Your task to perform on an android device: uninstall "Gmail" Image 0: 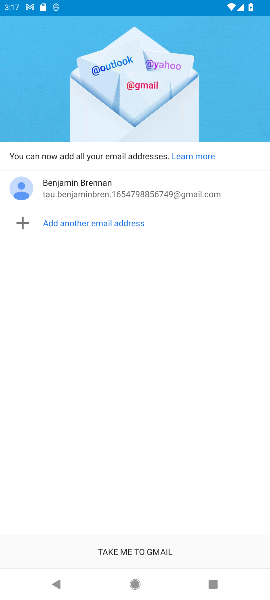
Step 0: press back button
Your task to perform on an android device: uninstall "Gmail" Image 1: 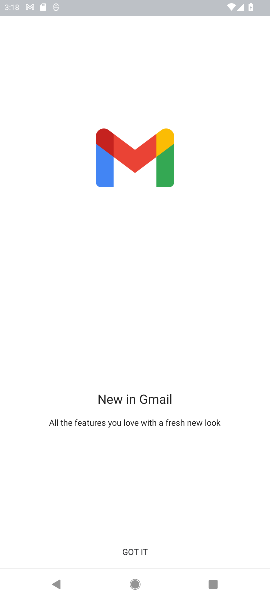
Step 1: press back button
Your task to perform on an android device: uninstall "Gmail" Image 2: 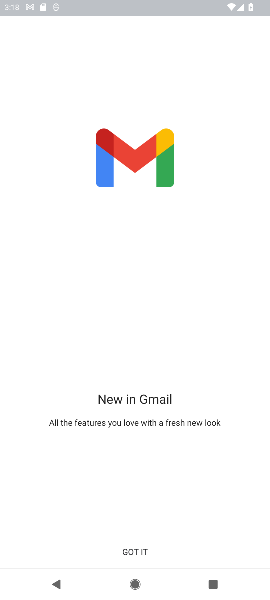
Step 2: press back button
Your task to perform on an android device: uninstall "Gmail" Image 3: 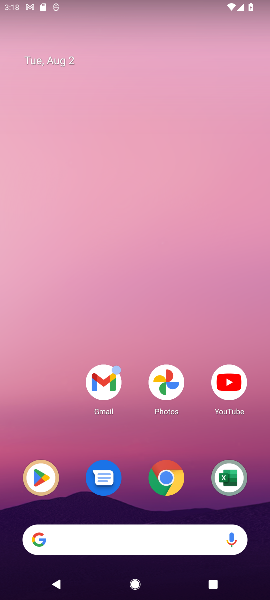
Step 3: press back button
Your task to perform on an android device: uninstall "Gmail" Image 4: 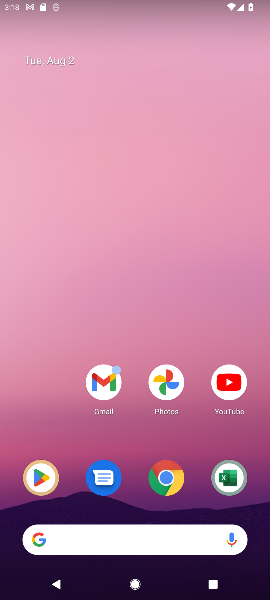
Step 4: drag from (181, 485) to (152, 184)
Your task to perform on an android device: uninstall "Gmail" Image 5: 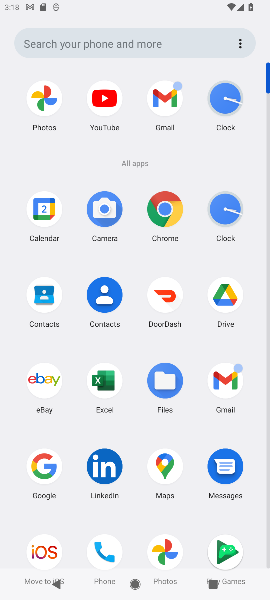
Step 5: drag from (138, 481) to (120, 186)
Your task to perform on an android device: uninstall "Gmail" Image 6: 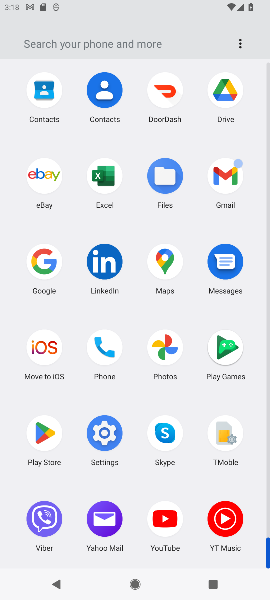
Step 6: click (40, 440)
Your task to perform on an android device: uninstall "Gmail" Image 7: 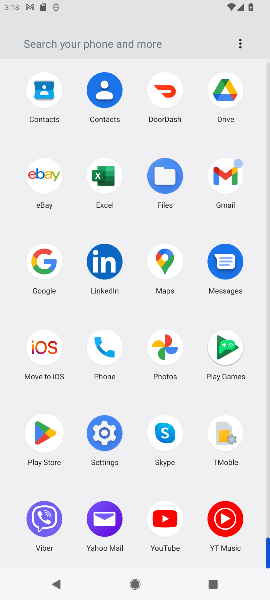
Step 7: click (45, 440)
Your task to perform on an android device: uninstall "Gmail" Image 8: 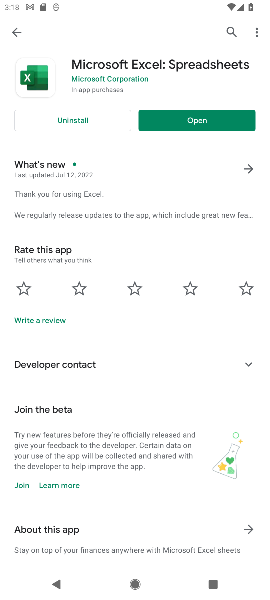
Step 8: click (49, 440)
Your task to perform on an android device: uninstall "Gmail" Image 9: 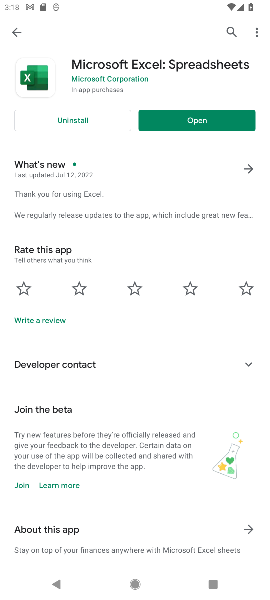
Step 9: click (13, 36)
Your task to perform on an android device: uninstall "Gmail" Image 10: 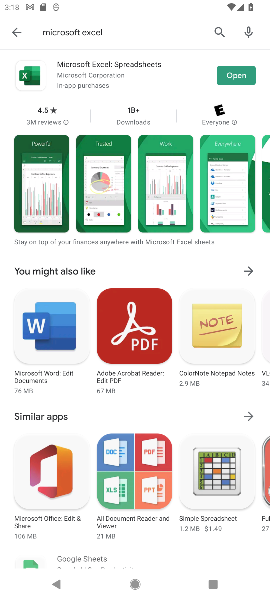
Step 10: click (15, 30)
Your task to perform on an android device: uninstall "Gmail" Image 11: 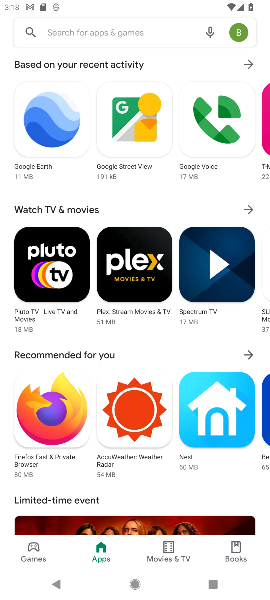
Step 11: click (64, 24)
Your task to perform on an android device: uninstall "Gmail" Image 12: 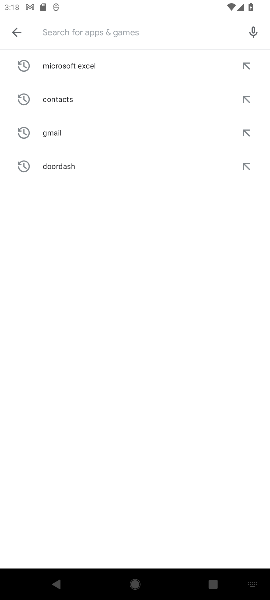
Step 12: type "gmail"
Your task to perform on an android device: uninstall "Gmail" Image 13: 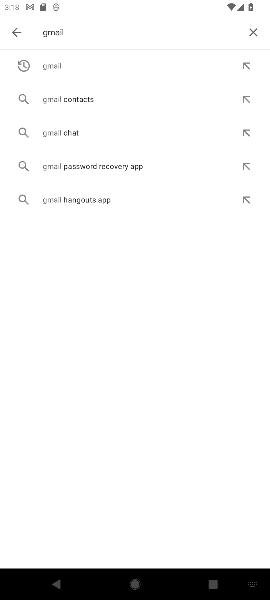
Step 13: click (44, 67)
Your task to perform on an android device: uninstall "Gmail" Image 14: 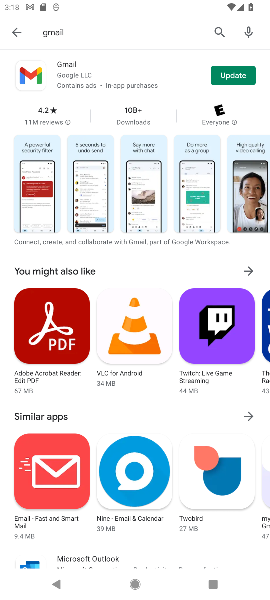
Step 14: click (231, 77)
Your task to perform on an android device: uninstall "Gmail" Image 15: 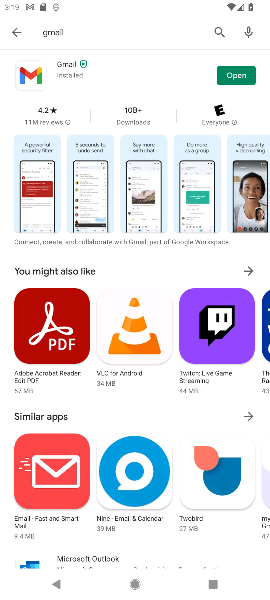
Step 15: click (243, 71)
Your task to perform on an android device: uninstall "Gmail" Image 16: 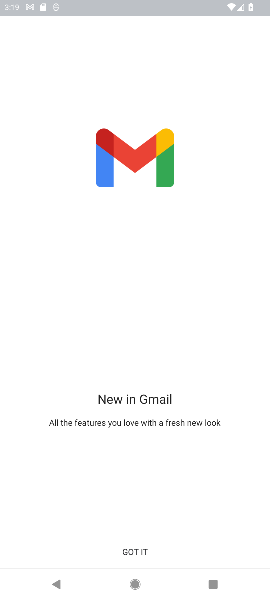
Step 16: click (134, 541)
Your task to perform on an android device: uninstall "Gmail" Image 17: 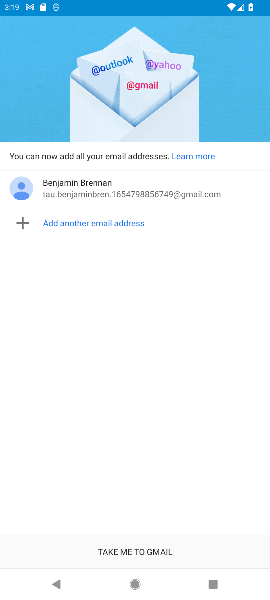
Step 17: click (149, 545)
Your task to perform on an android device: uninstall "Gmail" Image 18: 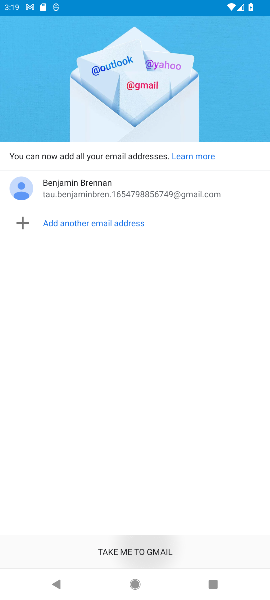
Step 18: click (150, 546)
Your task to perform on an android device: uninstall "Gmail" Image 19: 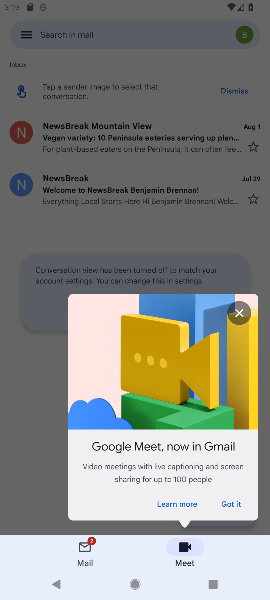
Step 19: task complete